Your task to perform on an android device: turn notification dots off Image 0: 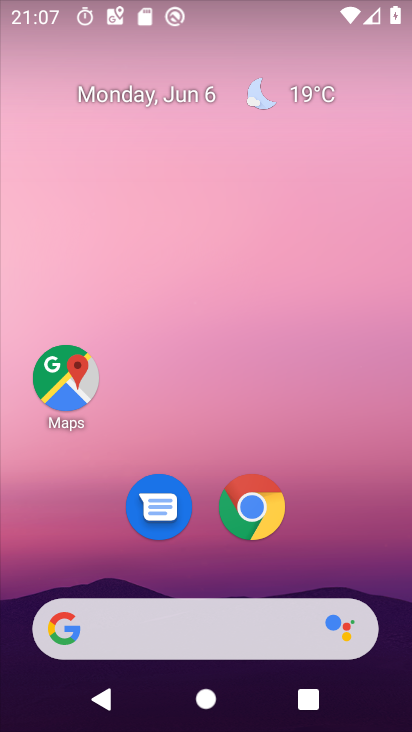
Step 0: press home button
Your task to perform on an android device: turn notification dots off Image 1: 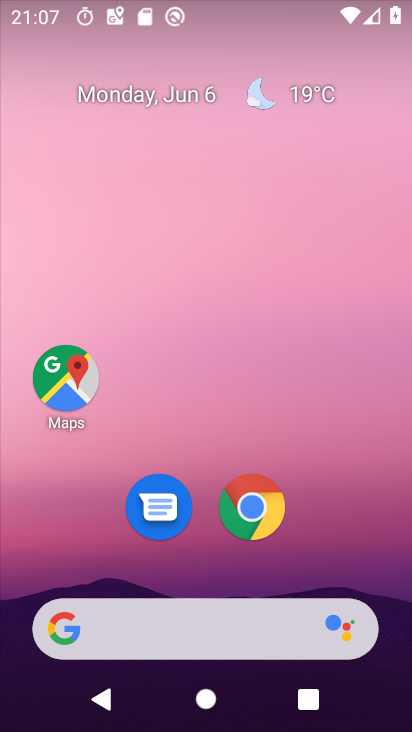
Step 1: drag from (350, 523) to (396, 34)
Your task to perform on an android device: turn notification dots off Image 2: 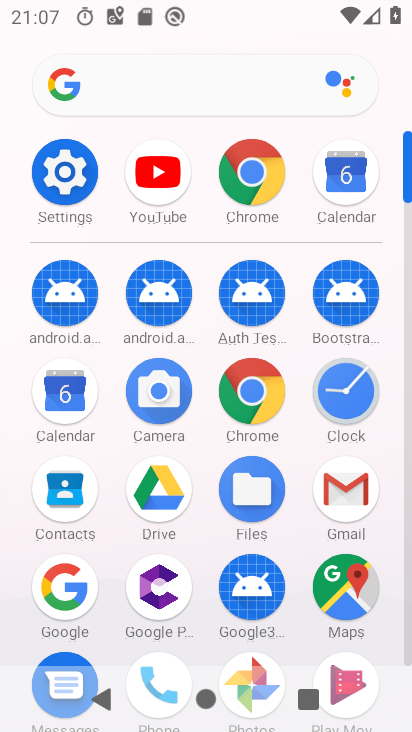
Step 2: click (59, 175)
Your task to perform on an android device: turn notification dots off Image 3: 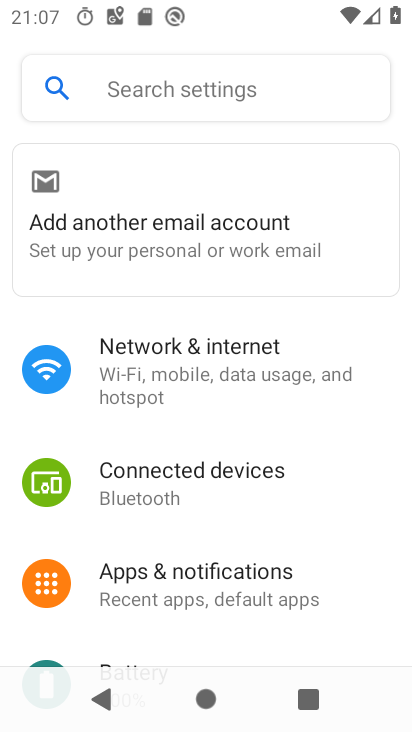
Step 3: drag from (124, 507) to (135, 408)
Your task to perform on an android device: turn notification dots off Image 4: 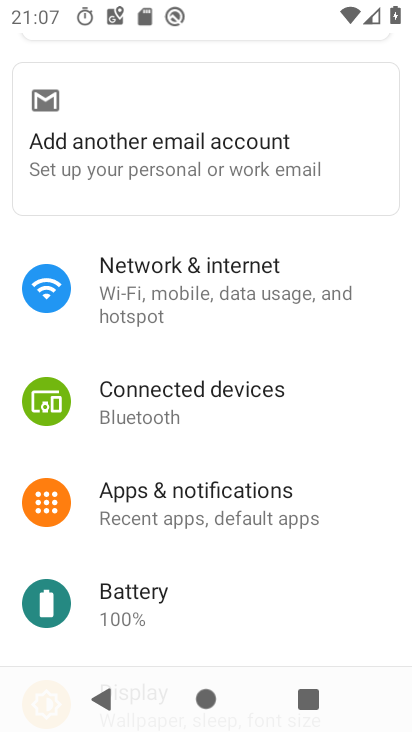
Step 4: click (167, 487)
Your task to perform on an android device: turn notification dots off Image 5: 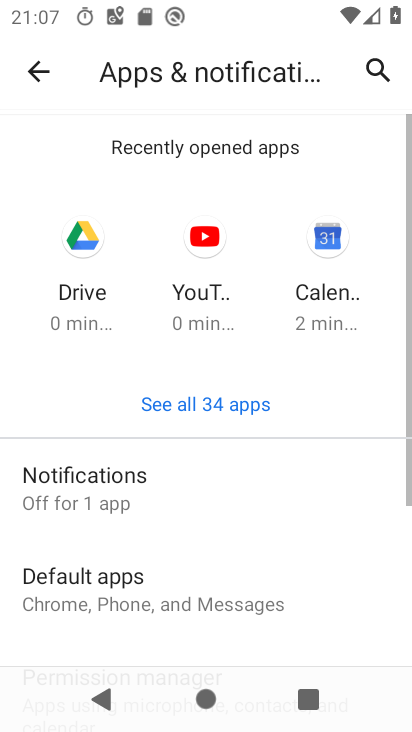
Step 5: click (135, 499)
Your task to perform on an android device: turn notification dots off Image 6: 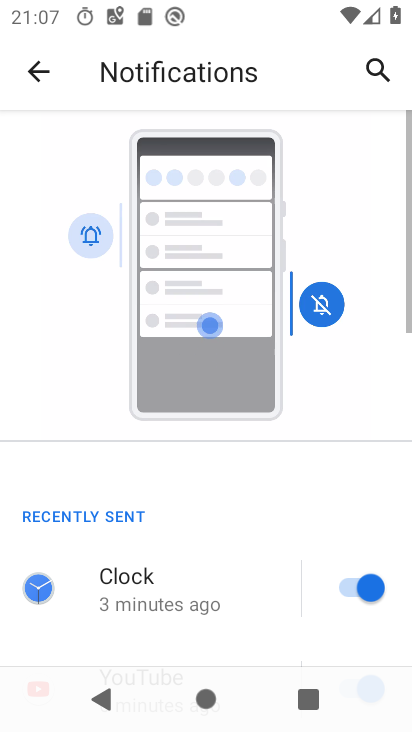
Step 6: drag from (214, 567) to (291, 146)
Your task to perform on an android device: turn notification dots off Image 7: 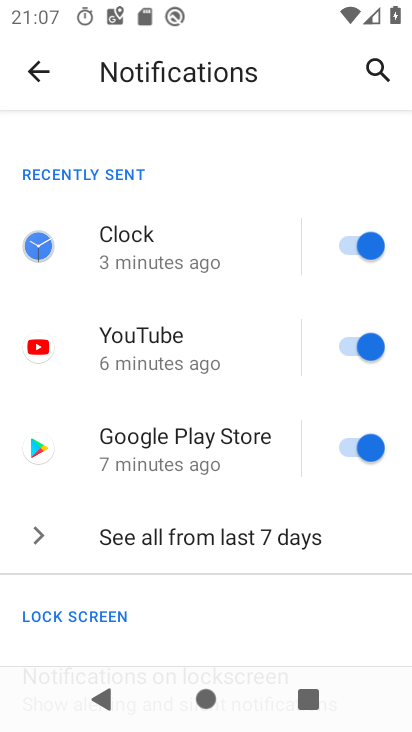
Step 7: drag from (188, 625) to (251, 317)
Your task to perform on an android device: turn notification dots off Image 8: 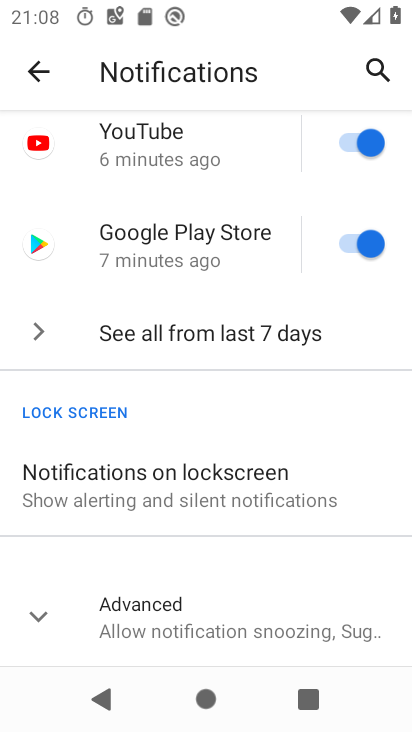
Step 8: click (183, 617)
Your task to perform on an android device: turn notification dots off Image 9: 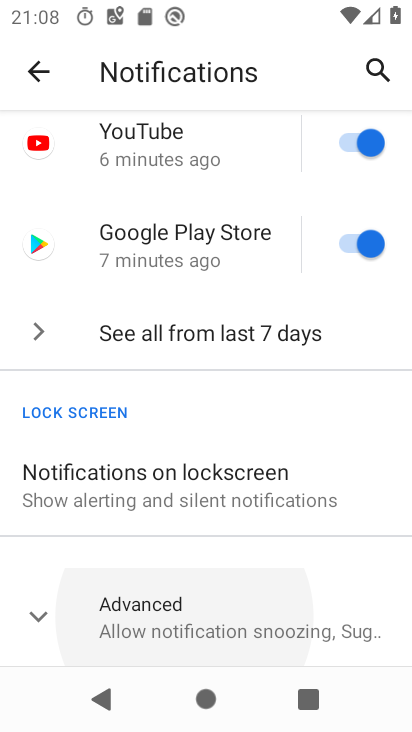
Step 9: task complete